Your task to perform on an android device: change alarm snooze length Image 0: 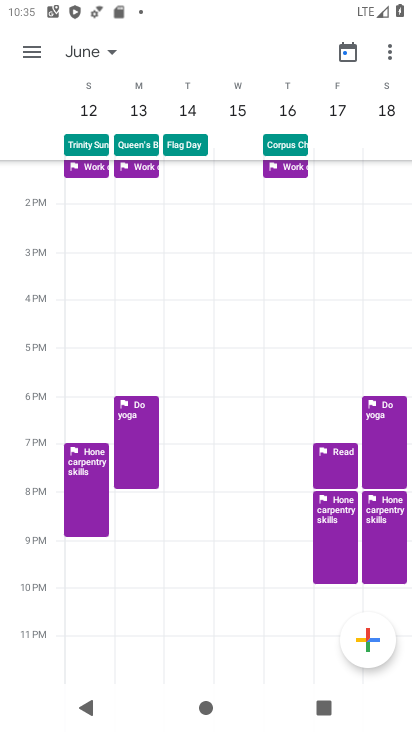
Step 0: press home button
Your task to perform on an android device: change alarm snooze length Image 1: 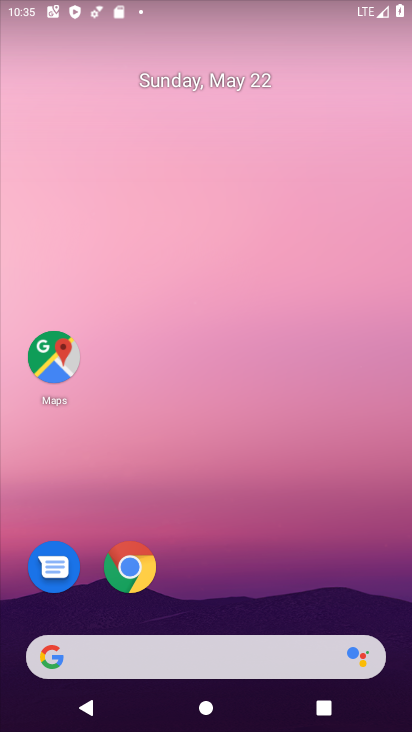
Step 1: drag from (336, 609) to (319, 44)
Your task to perform on an android device: change alarm snooze length Image 2: 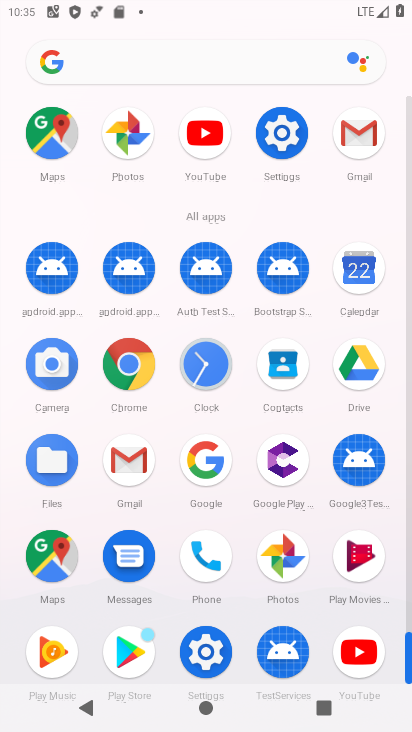
Step 2: click (205, 365)
Your task to perform on an android device: change alarm snooze length Image 3: 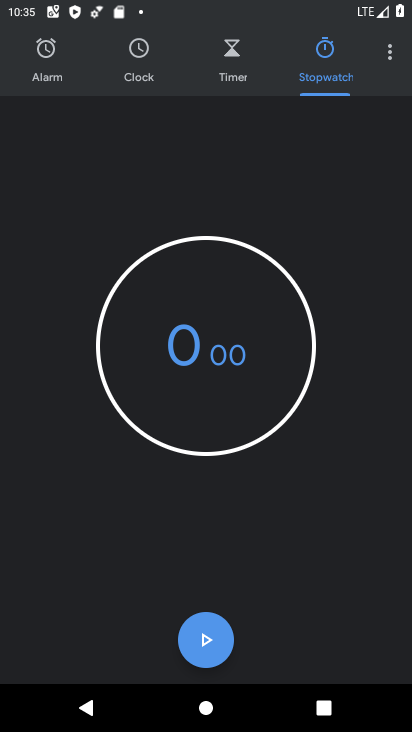
Step 3: click (389, 62)
Your task to perform on an android device: change alarm snooze length Image 4: 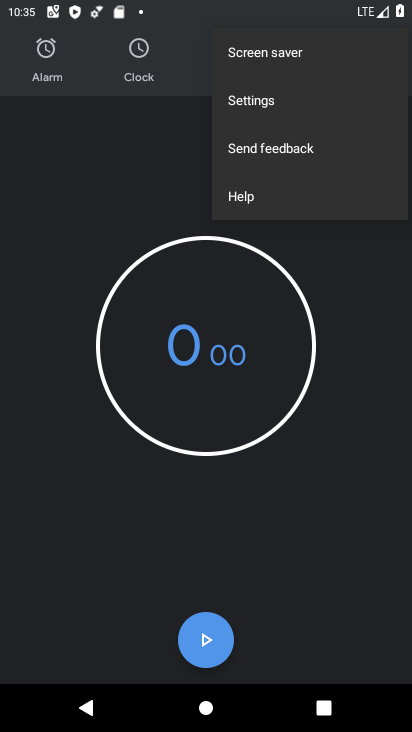
Step 4: click (236, 111)
Your task to perform on an android device: change alarm snooze length Image 5: 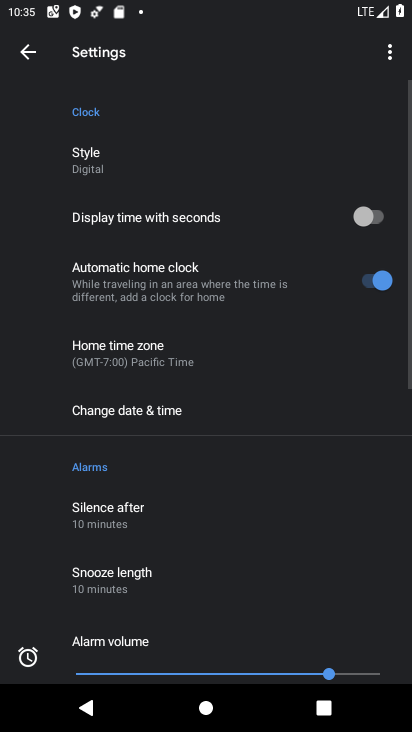
Step 5: drag from (204, 530) to (254, 208)
Your task to perform on an android device: change alarm snooze length Image 6: 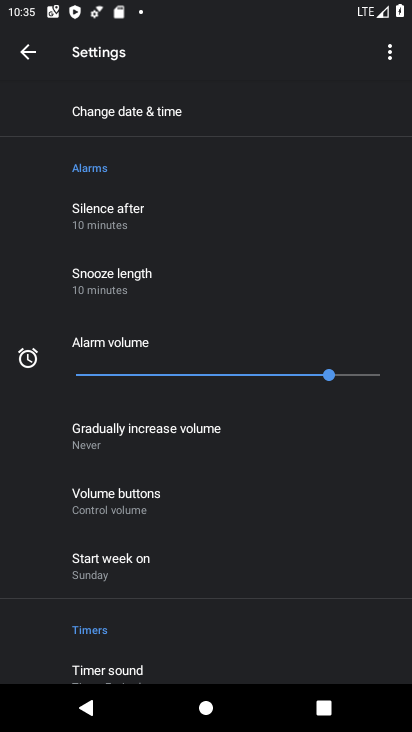
Step 6: click (83, 277)
Your task to perform on an android device: change alarm snooze length Image 7: 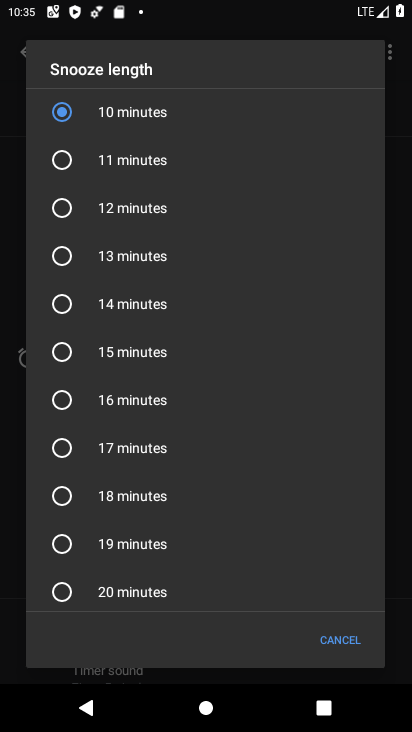
Step 7: click (64, 346)
Your task to perform on an android device: change alarm snooze length Image 8: 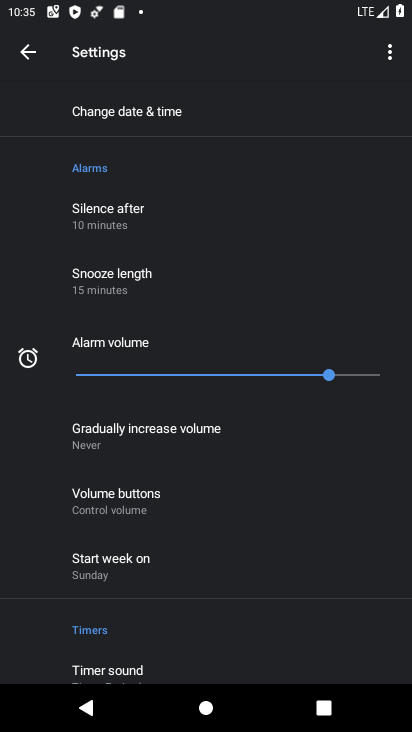
Step 8: task complete